Your task to perform on an android device: Open Google Maps Image 0: 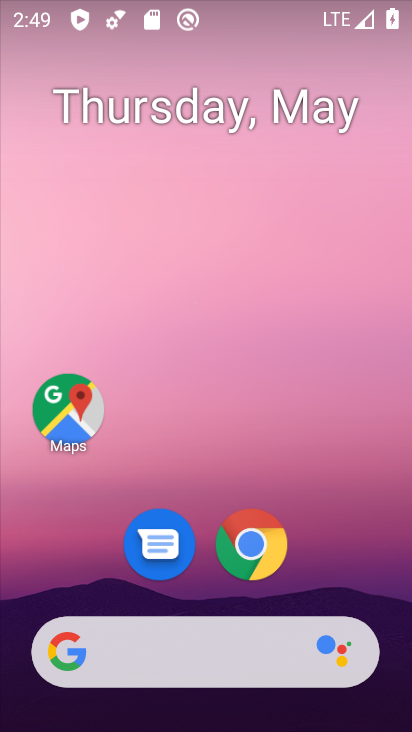
Step 0: click (56, 424)
Your task to perform on an android device: Open Google Maps Image 1: 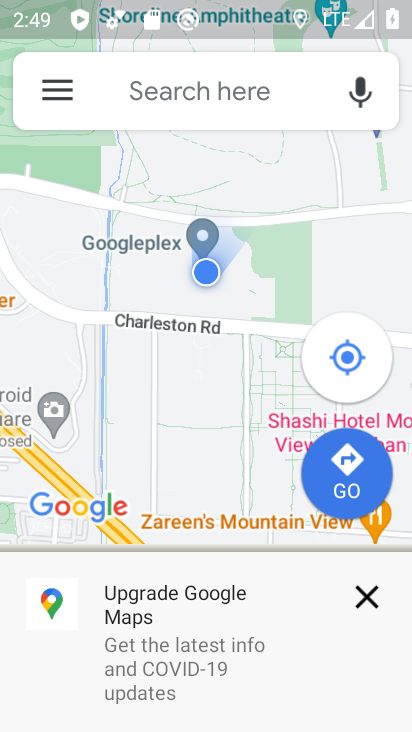
Step 1: task complete